Your task to perform on an android device: toggle translation in the chrome app Image 0: 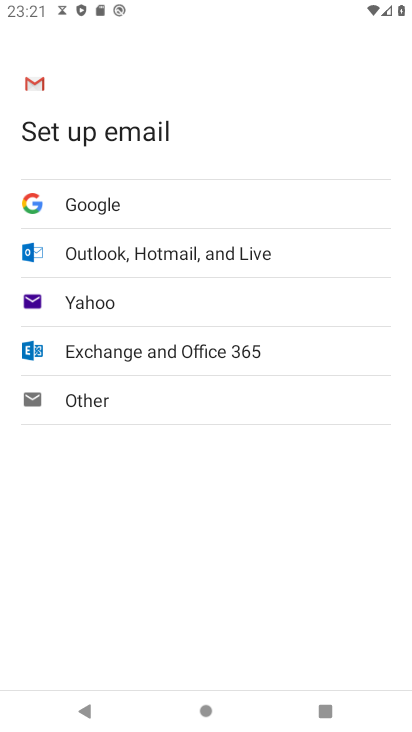
Step 0: press home button
Your task to perform on an android device: toggle translation in the chrome app Image 1: 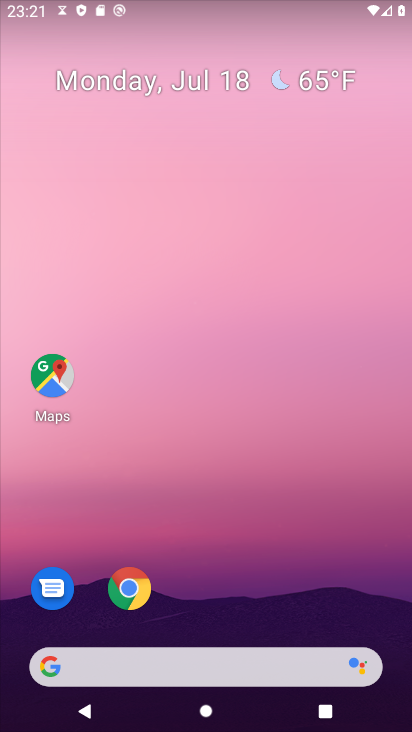
Step 1: click (131, 586)
Your task to perform on an android device: toggle translation in the chrome app Image 2: 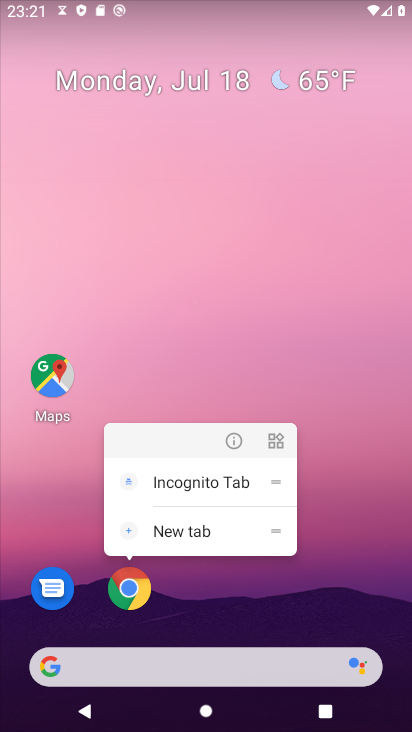
Step 2: click (140, 596)
Your task to perform on an android device: toggle translation in the chrome app Image 3: 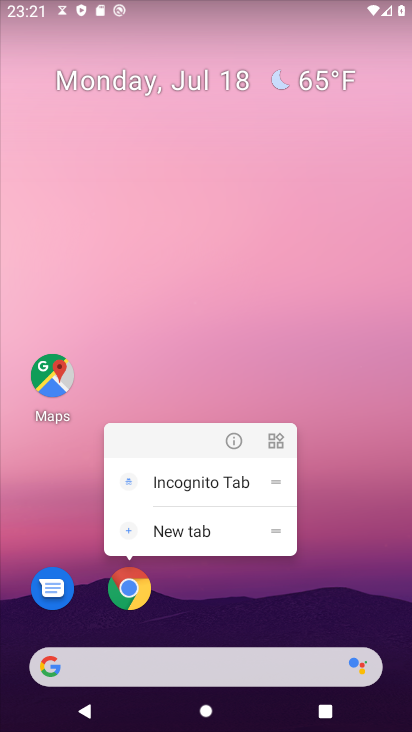
Step 3: click (136, 589)
Your task to perform on an android device: toggle translation in the chrome app Image 4: 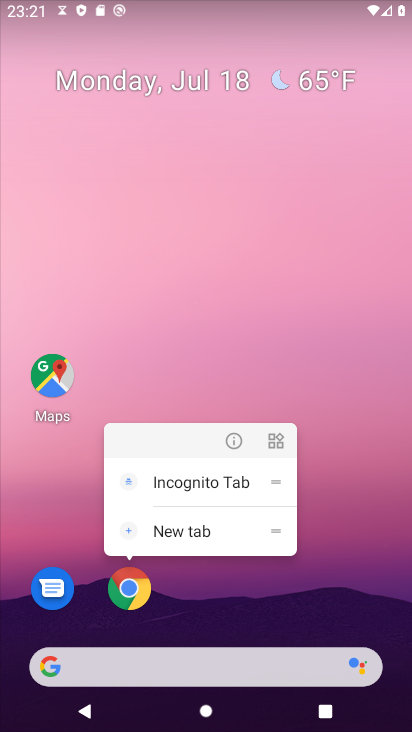
Step 4: click (136, 589)
Your task to perform on an android device: toggle translation in the chrome app Image 5: 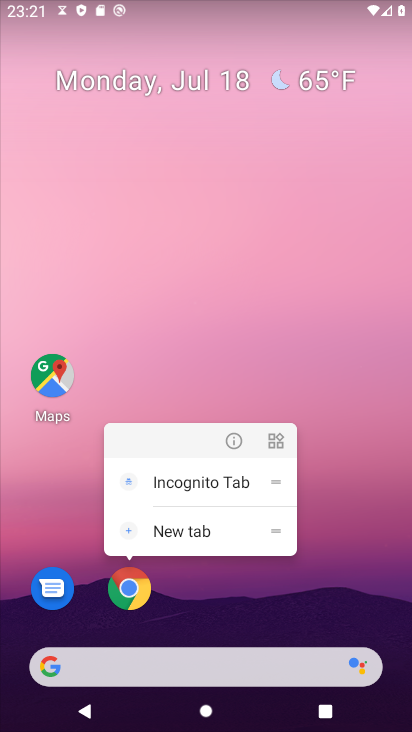
Step 5: click (133, 589)
Your task to perform on an android device: toggle translation in the chrome app Image 6: 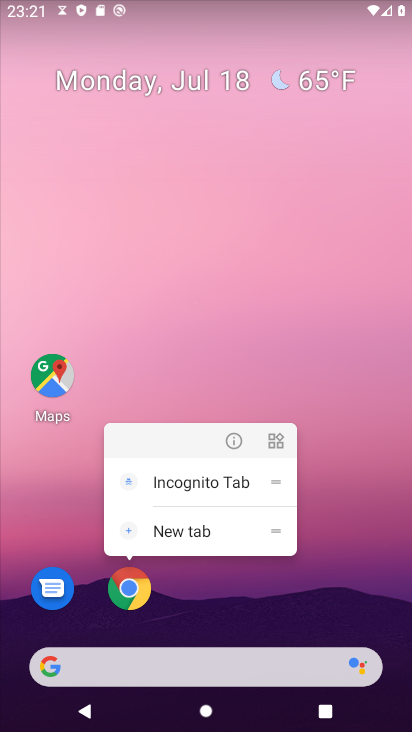
Step 6: click (133, 590)
Your task to perform on an android device: toggle translation in the chrome app Image 7: 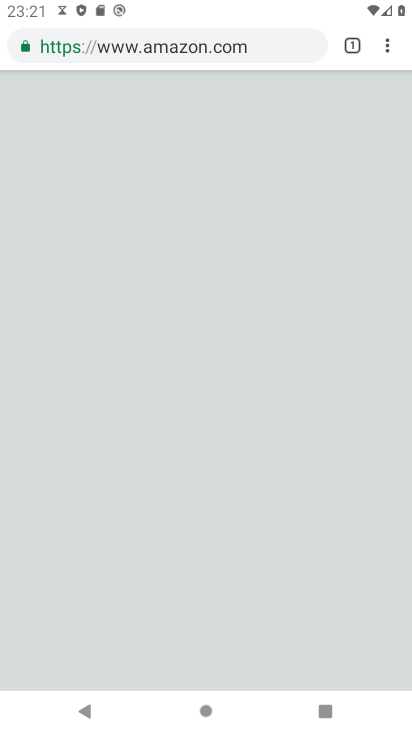
Step 7: drag from (392, 46) to (233, 548)
Your task to perform on an android device: toggle translation in the chrome app Image 8: 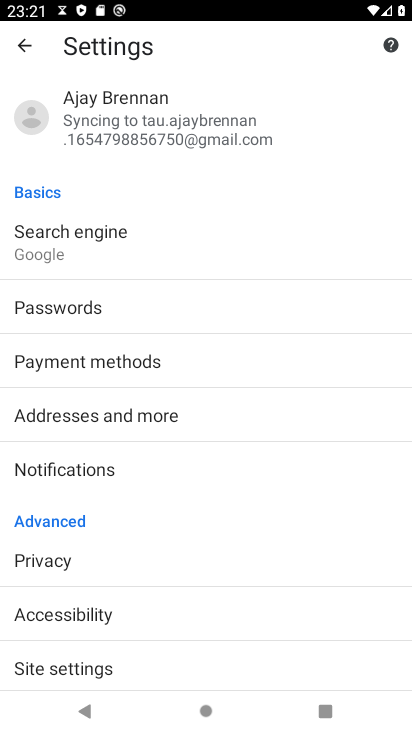
Step 8: drag from (190, 511) to (266, 116)
Your task to perform on an android device: toggle translation in the chrome app Image 9: 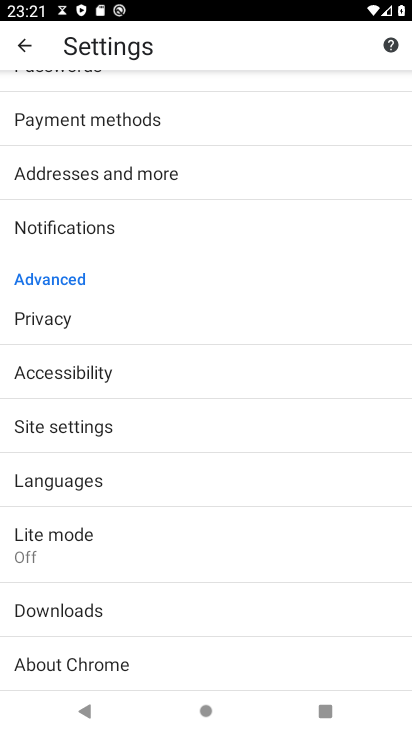
Step 9: click (137, 485)
Your task to perform on an android device: toggle translation in the chrome app Image 10: 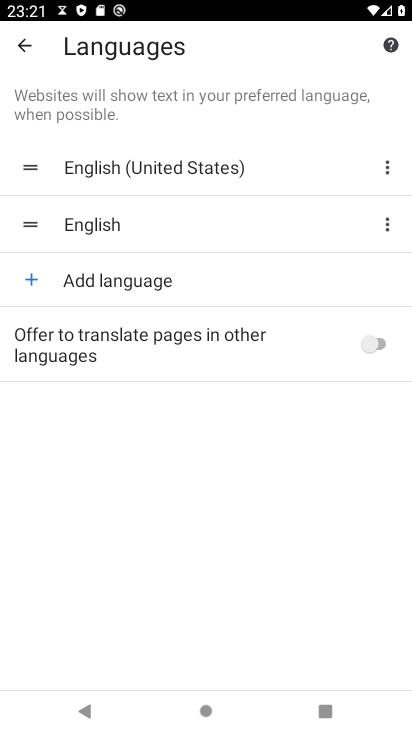
Step 10: click (372, 345)
Your task to perform on an android device: toggle translation in the chrome app Image 11: 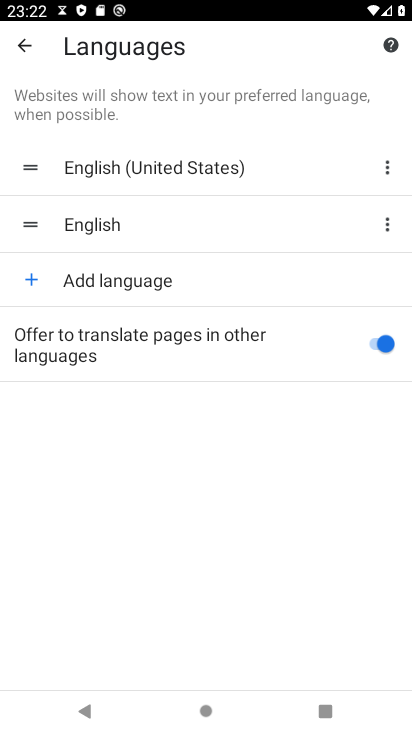
Step 11: task complete